Your task to perform on an android device: check the backup settings in the google photos Image 0: 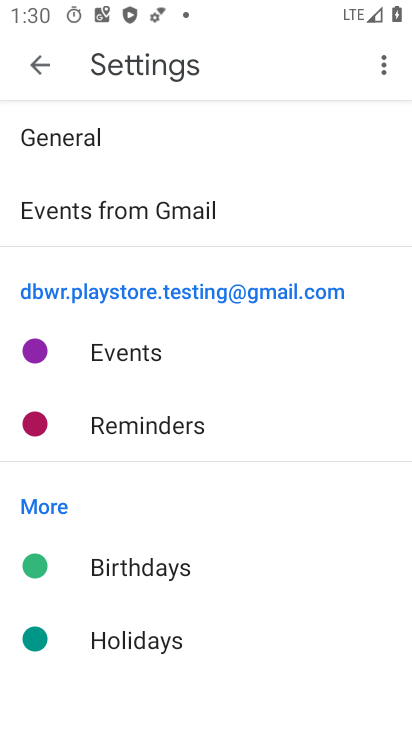
Step 0: press home button
Your task to perform on an android device: check the backup settings in the google photos Image 1: 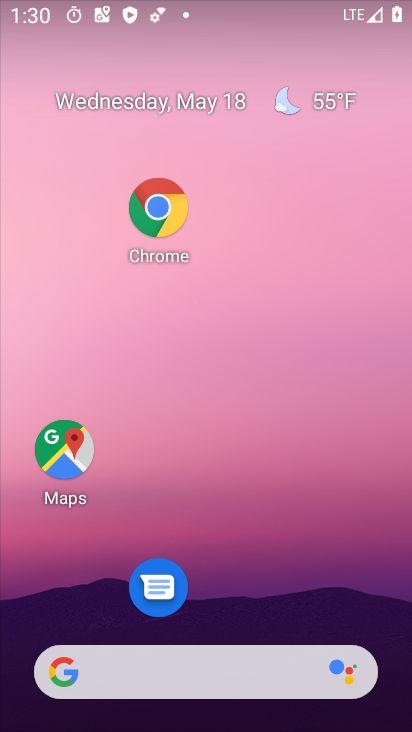
Step 1: drag from (277, 612) to (136, 201)
Your task to perform on an android device: check the backup settings in the google photos Image 2: 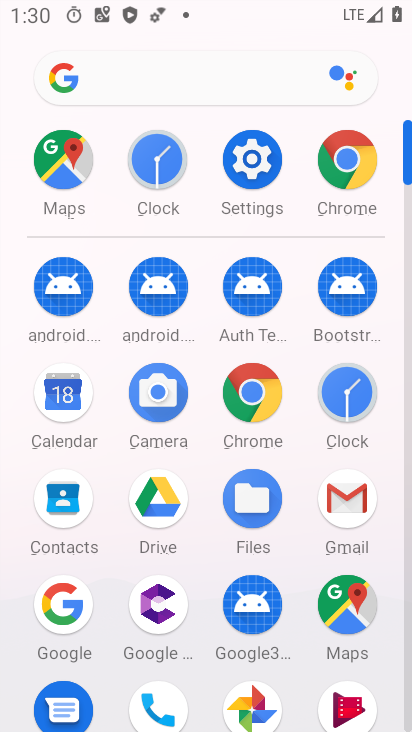
Step 2: click (249, 700)
Your task to perform on an android device: check the backup settings in the google photos Image 3: 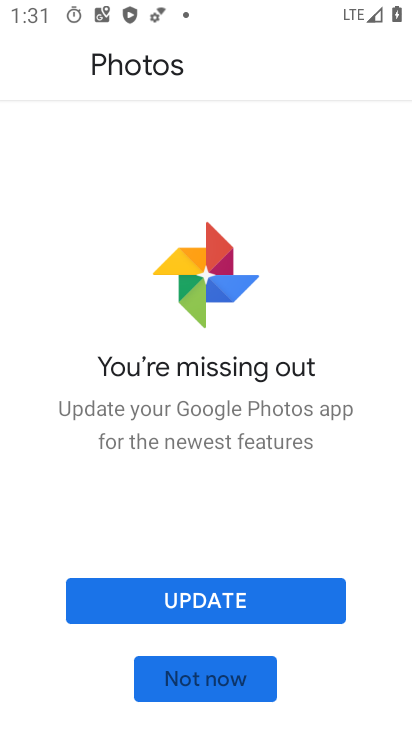
Step 3: click (229, 686)
Your task to perform on an android device: check the backup settings in the google photos Image 4: 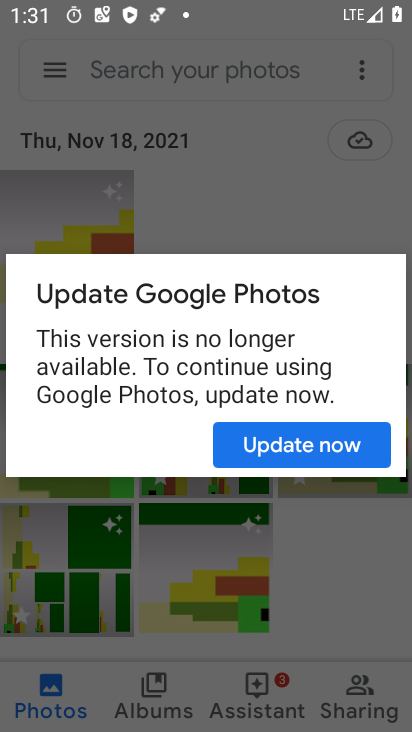
Step 4: click (296, 448)
Your task to perform on an android device: check the backup settings in the google photos Image 5: 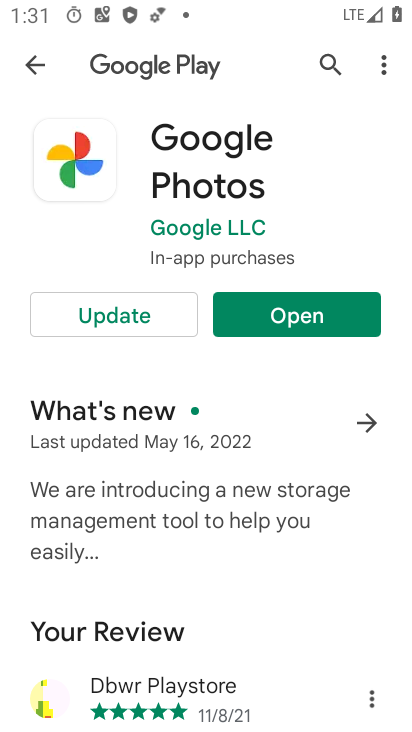
Step 5: click (153, 322)
Your task to perform on an android device: check the backup settings in the google photos Image 6: 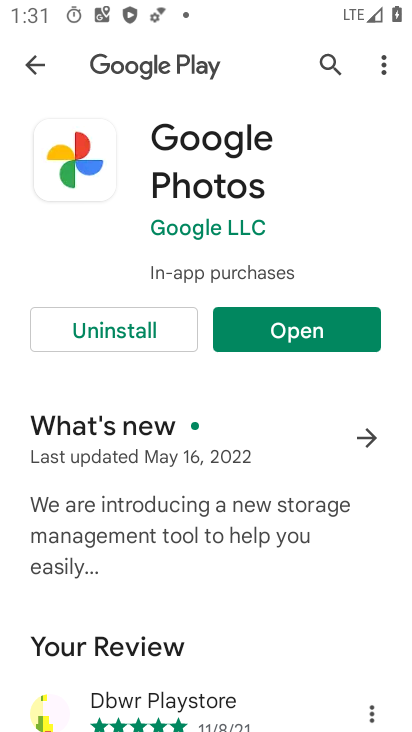
Step 6: click (296, 337)
Your task to perform on an android device: check the backup settings in the google photos Image 7: 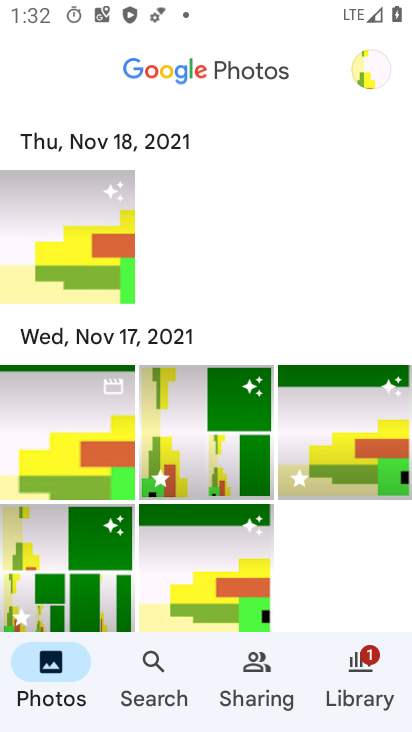
Step 7: click (76, 668)
Your task to perform on an android device: check the backup settings in the google photos Image 8: 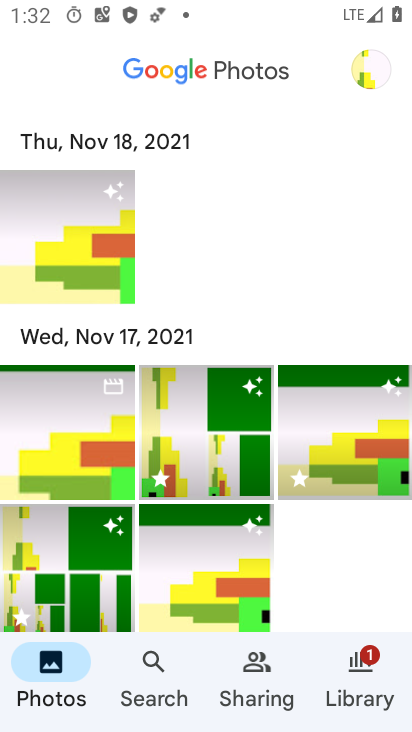
Step 8: click (376, 78)
Your task to perform on an android device: check the backup settings in the google photos Image 9: 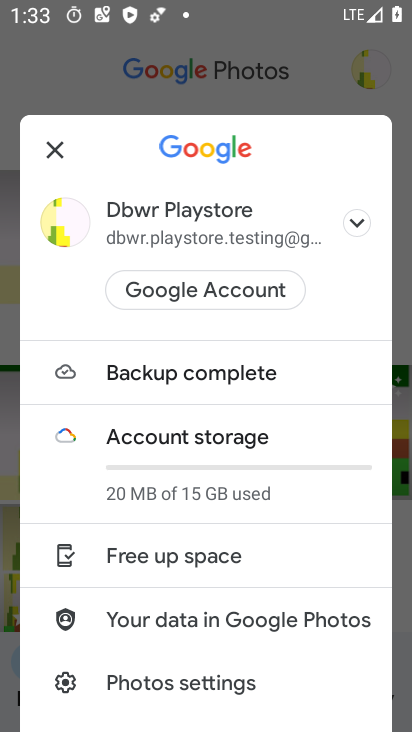
Step 9: task complete